Your task to perform on an android device: turn on bluetooth scan Image 0: 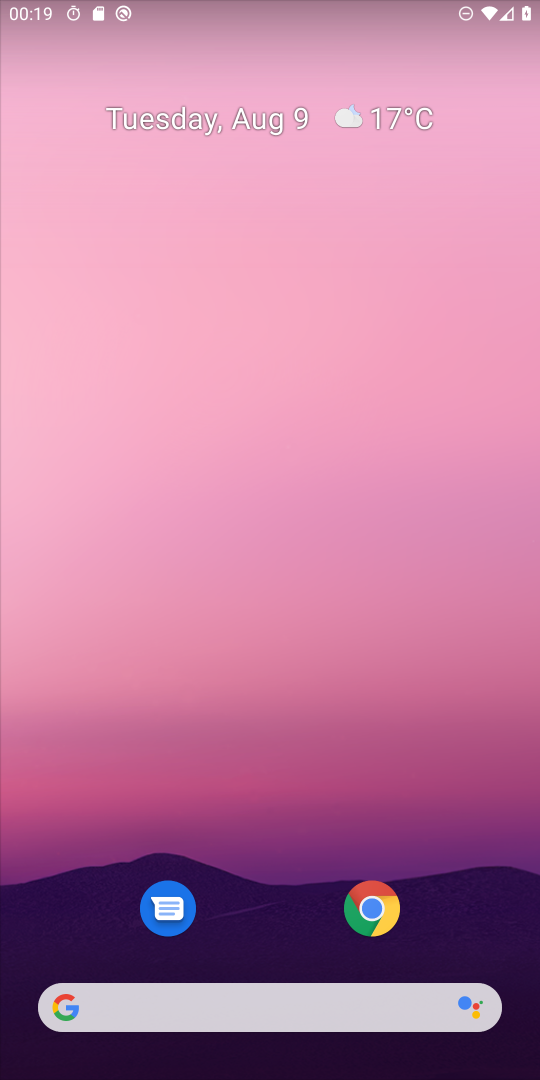
Step 0: drag from (474, 898) to (352, 130)
Your task to perform on an android device: turn on bluetooth scan Image 1: 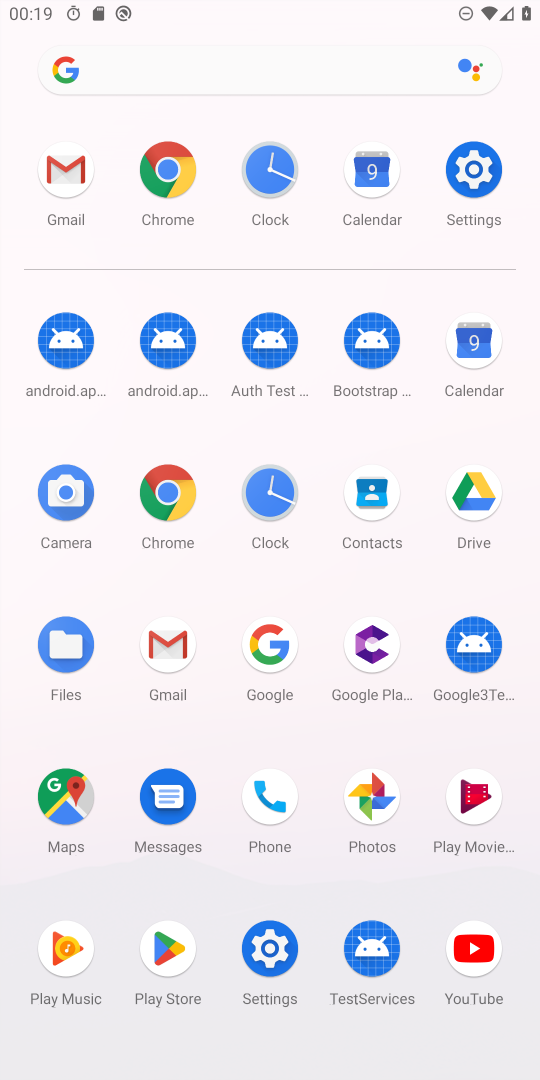
Step 1: click (485, 180)
Your task to perform on an android device: turn on bluetooth scan Image 2: 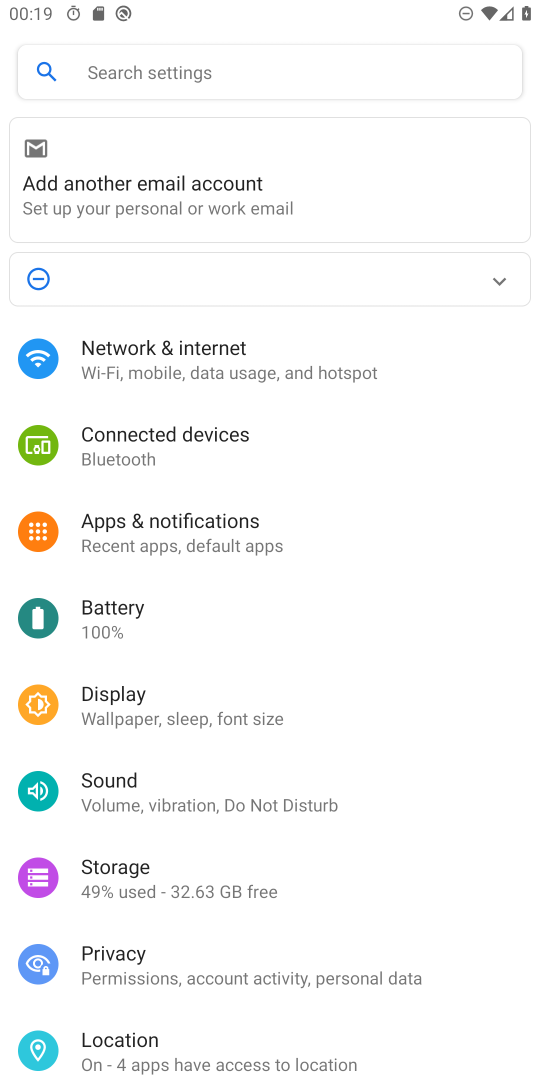
Step 2: click (294, 1046)
Your task to perform on an android device: turn on bluetooth scan Image 3: 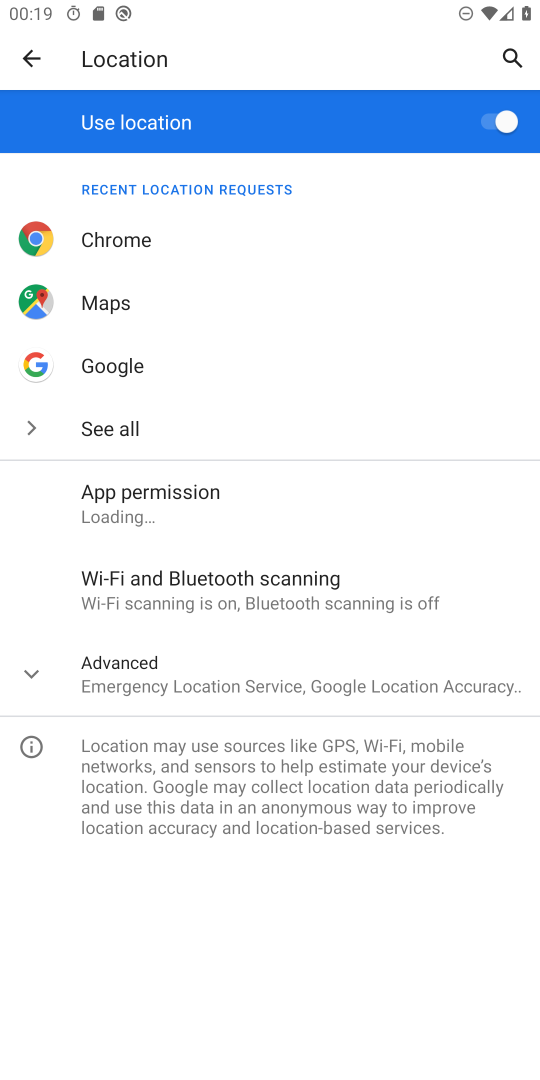
Step 3: click (378, 585)
Your task to perform on an android device: turn on bluetooth scan Image 4: 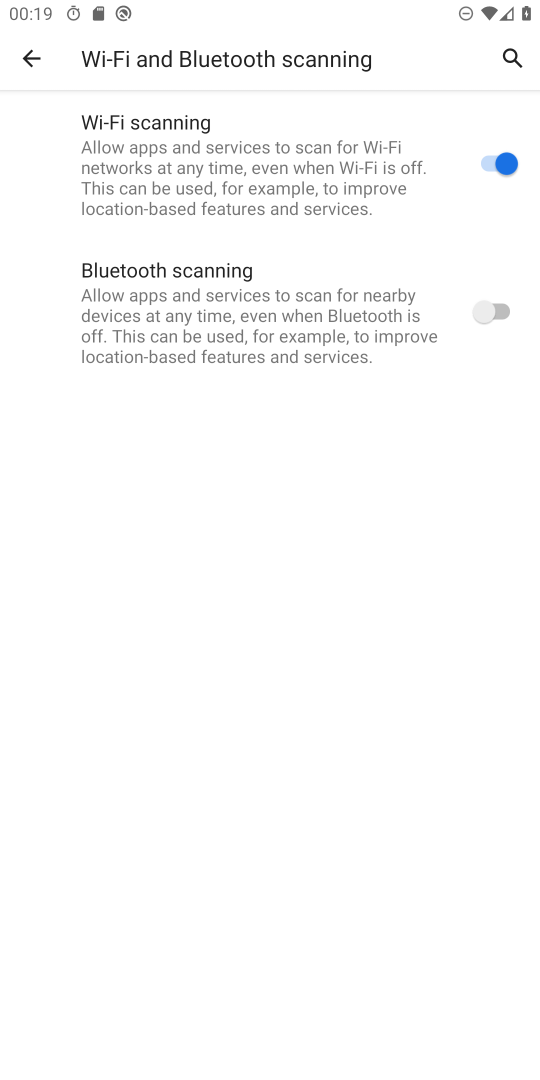
Step 4: click (506, 335)
Your task to perform on an android device: turn on bluetooth scan Image 5: 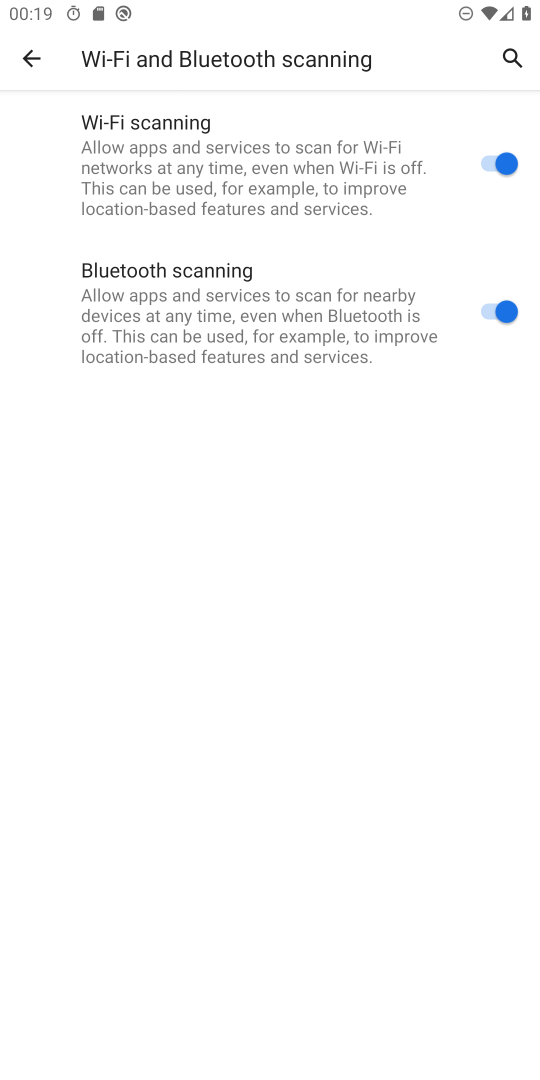
Step 5: task complete